Your task to perform on an android device: delete a single message in the gmail app Image 0: 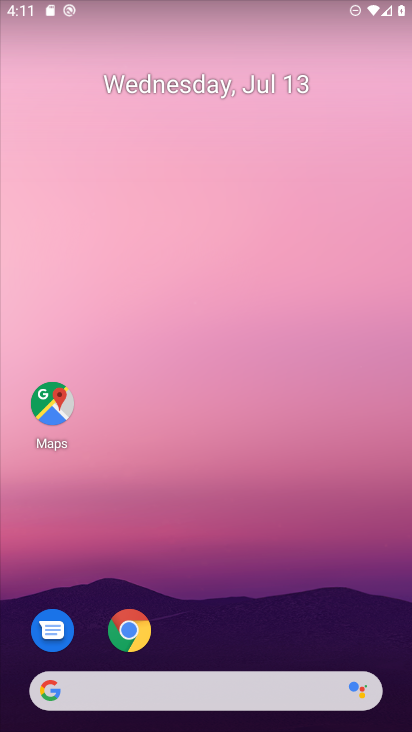
Step 0: drag from (208, 419) to (212, 158)
Your task to perform on an android device: delete a single message in the gmail app Image 1: 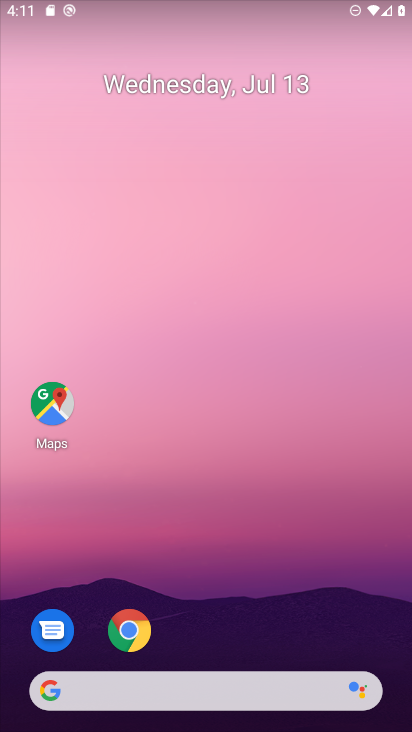
Step 1: drag from (193, 488) to (331, 89)
Your task to perform on an android device: delete a single message in the gmail app Image 2: 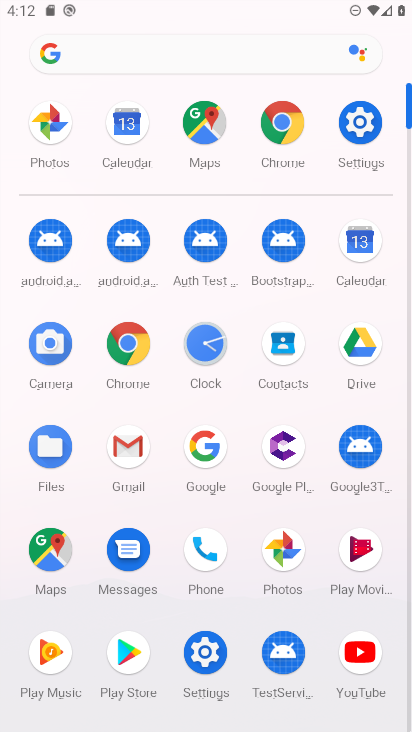
Step 2: click (119, 461)
Your task to perform on an android device: delete a single message in the gmail app Image 3: 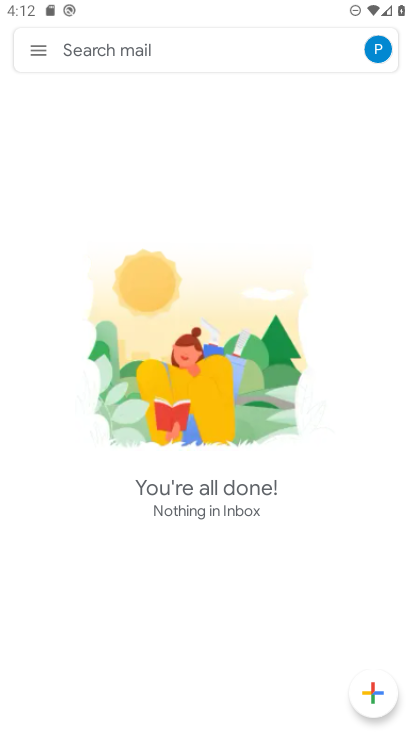
Step 3: click (38, 49)
Your task to perform on an android device: delete a single message in the gmail app Image 4: 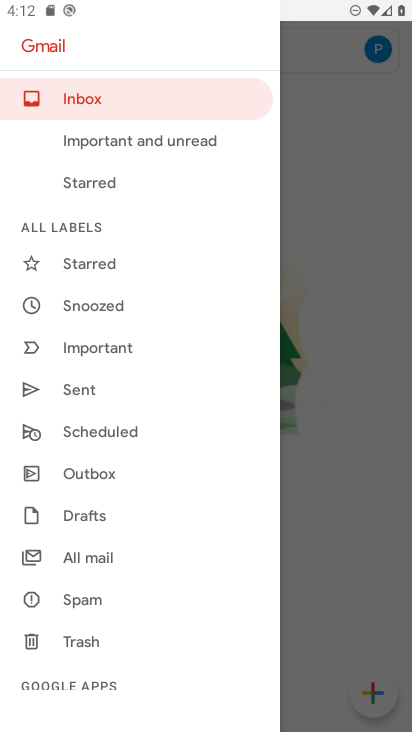
Step 4: click (88, 560)
Your task to perform on an android device: delete a single message in the gmail app Image 5: 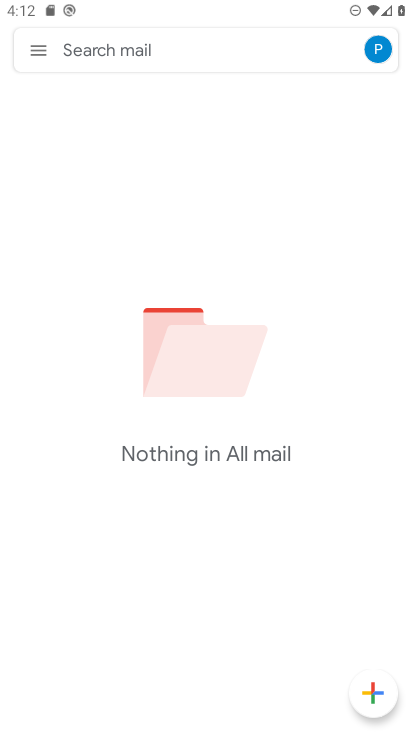
Step 5: task complete